Your task to perform on an android device: change the upload size in google photos Image 0: 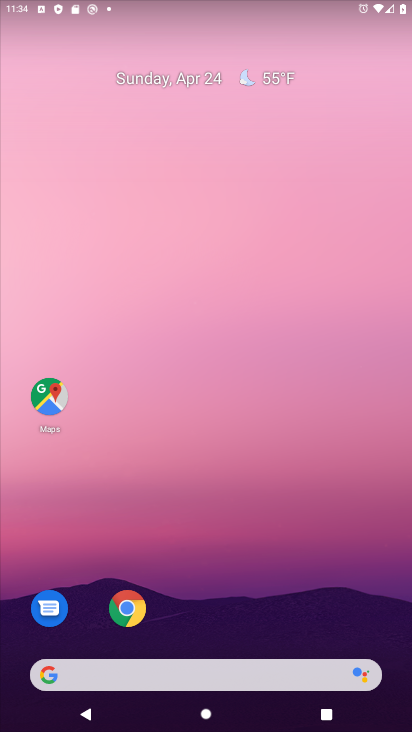
Step 0: drag from (384, 638) to (327, 134)
Your task to perform on an android device: change the upload size in google photos Image 1: 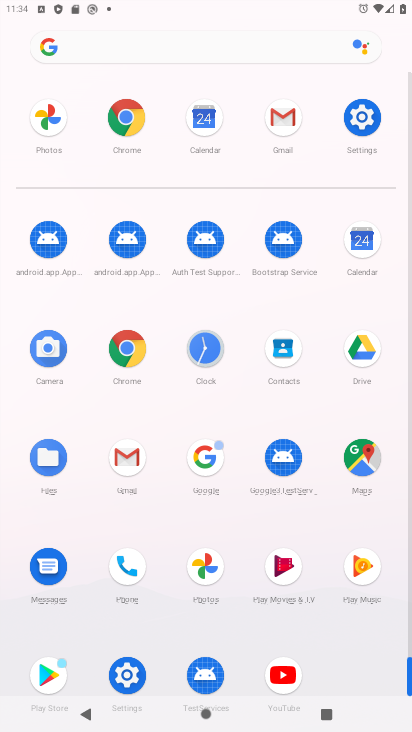
Step 1: click (202, 565)
Your task to perform on an android device: change the upload size in google photos Image 2: 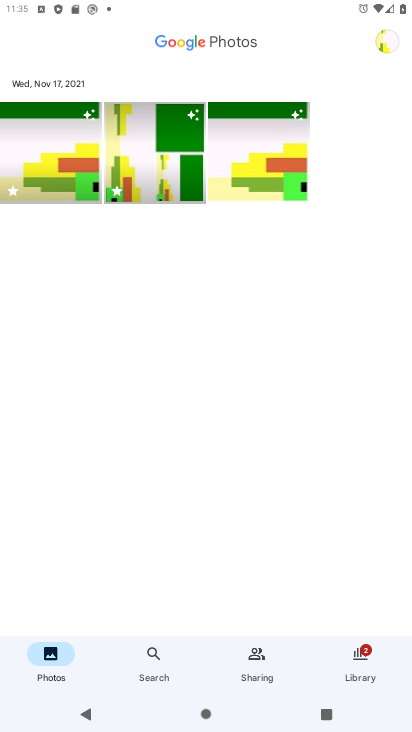
Step 2: click (385, 41)
Your task to perform on an android device: change the upload size in google photos Image 3: 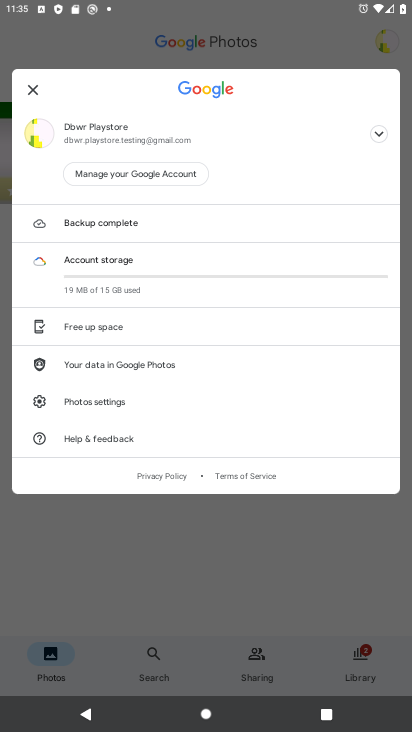
Step 3: click (82, 398)
Your task to perform on an android device: change the upload size in google photos Image 4: 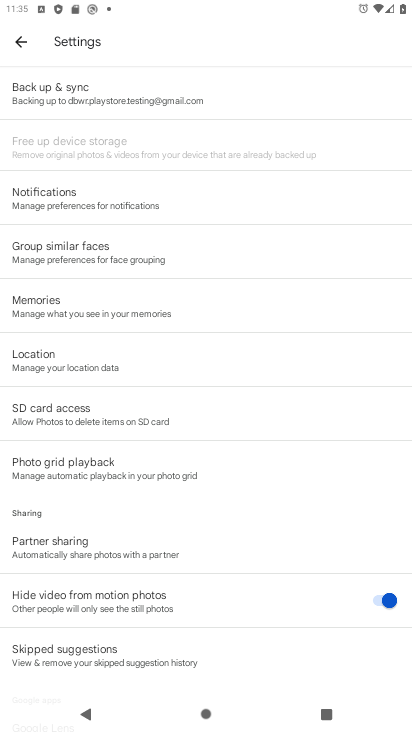
Step 4: click (60, 90)
Your task to perform on an android device: change the upload size in google photos Image 5: 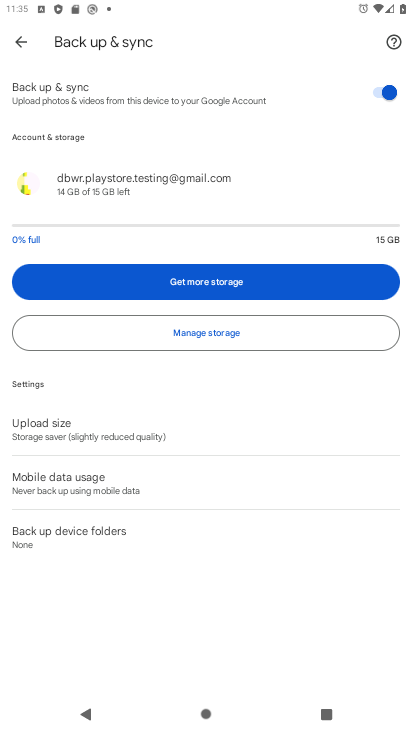
Step 5: click (46, 426)
Your task to perform on an android device: change the upload size in google photos Image 6: 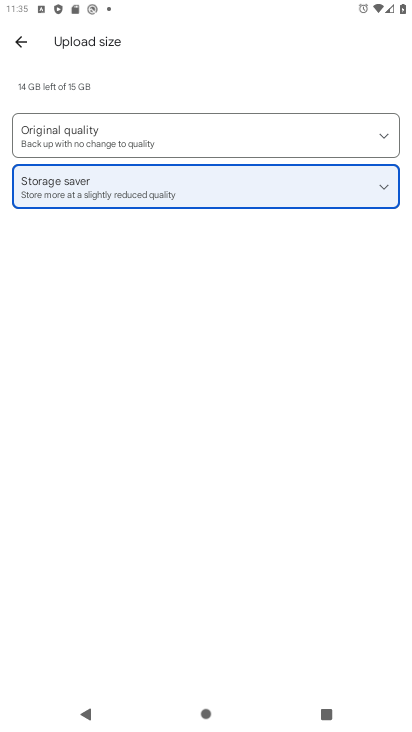
Step 6: click (153, 136)
Your task to perform on an android device: change the upload size in google photos Image 7: 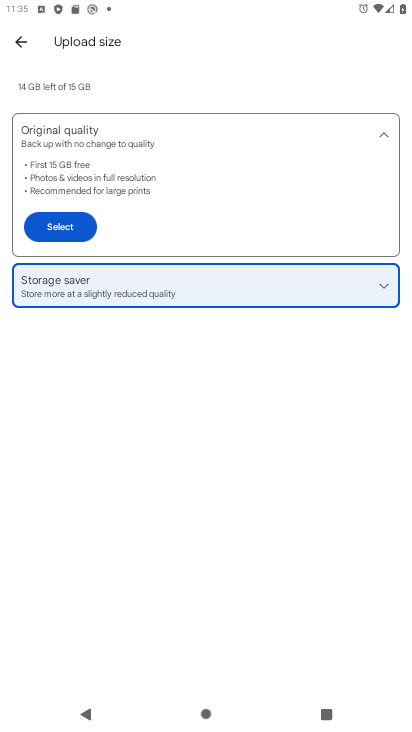
Step 7: click (55, 235)
Your task to perform on an android device: change the upload size in google photos Image 8: 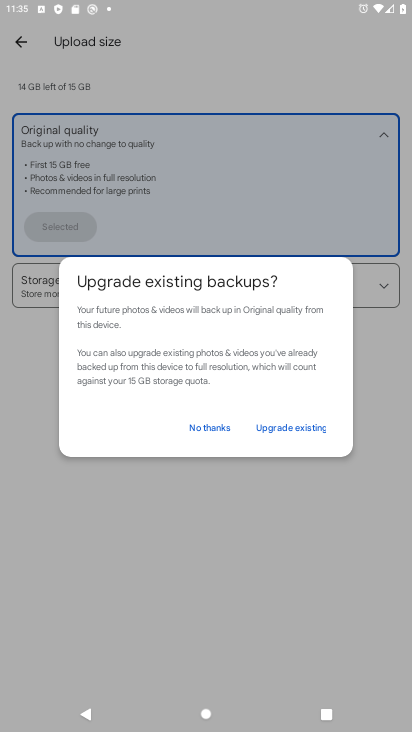
Step 8: click (201, 424)
Your task to perform on an android device: change the upload size in google photos Image 9: 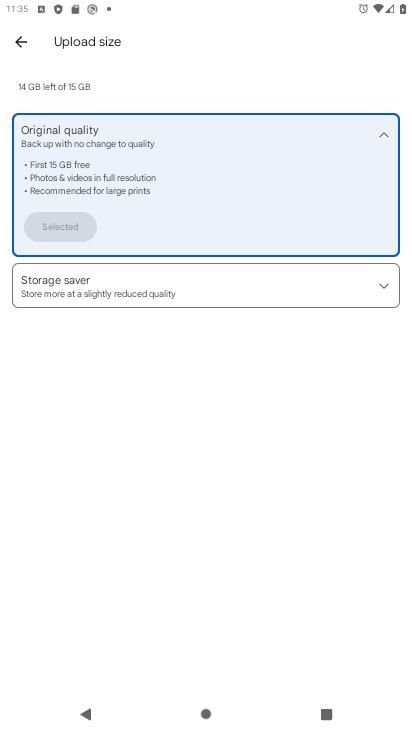
Step 9: task complete